Your task to perform on an android device: Go to internet settings Image 0: 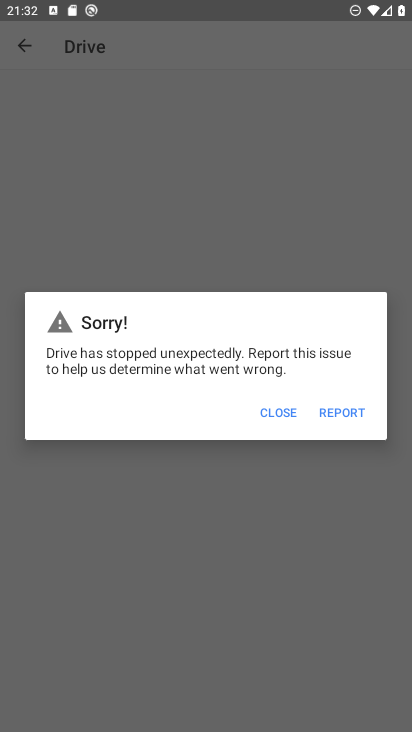
Step 0: press home button
Your task to perform on an android device: Go to internet settings Image 1: 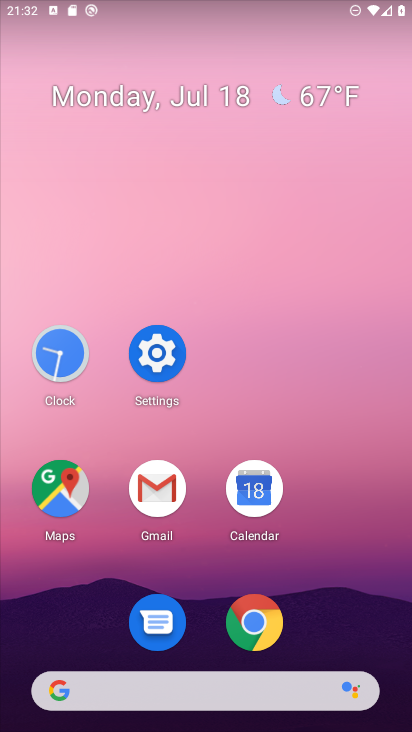
Step 1: click (145, 346)
Your task to perform on an android device: Go to internet settings Image 2: 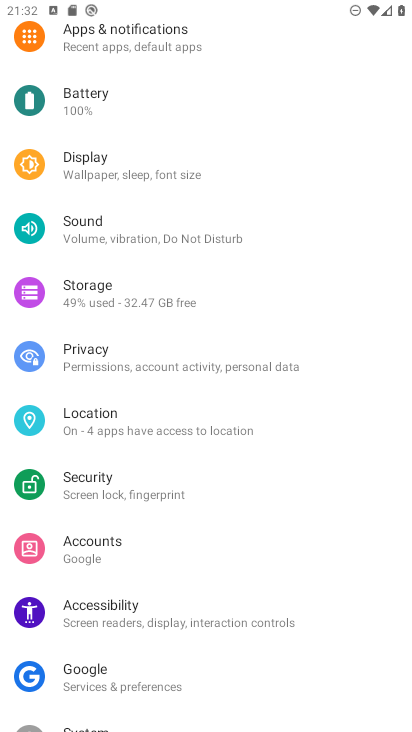
Step 2: drag from (319, 161) to (316, 624)
Your task to perform on an android device: Go to internet settings Image 3: 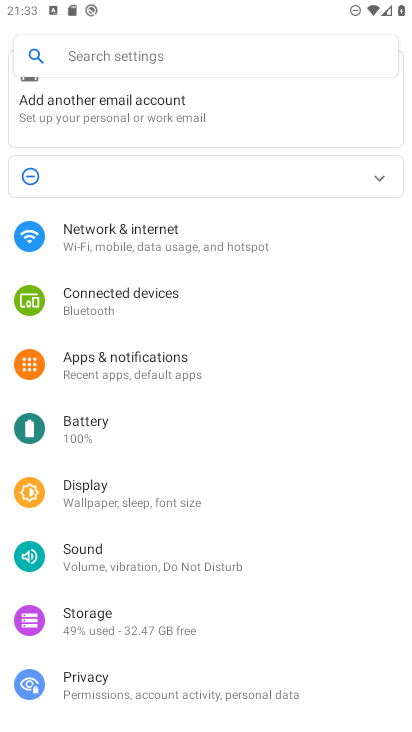
Step 3: click (112, 236)
Your task to perform on an android device: Go to internet settings Image 4: 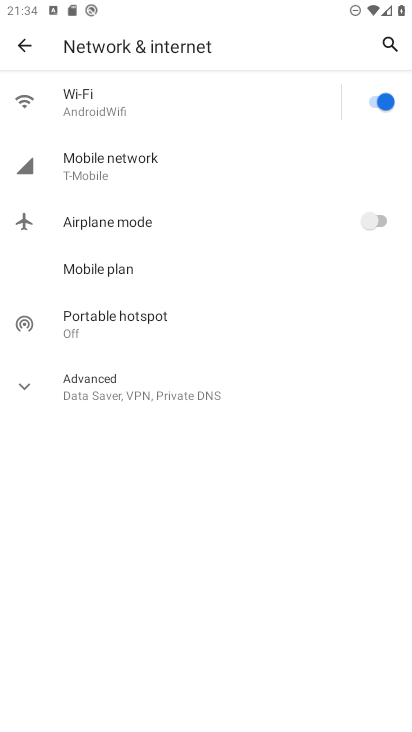
Step 4: click (27, 389)
Your task to perform on an android device: Go to internet settings Image 5: 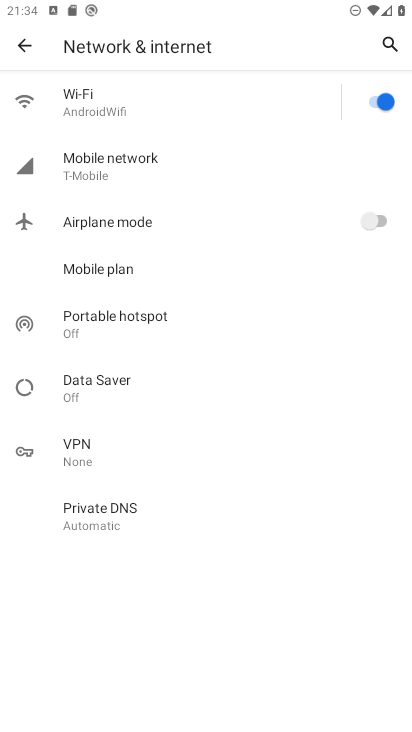
Step 5: task complete